Your task to perform on an android device: When is my next meeting? Image 0: 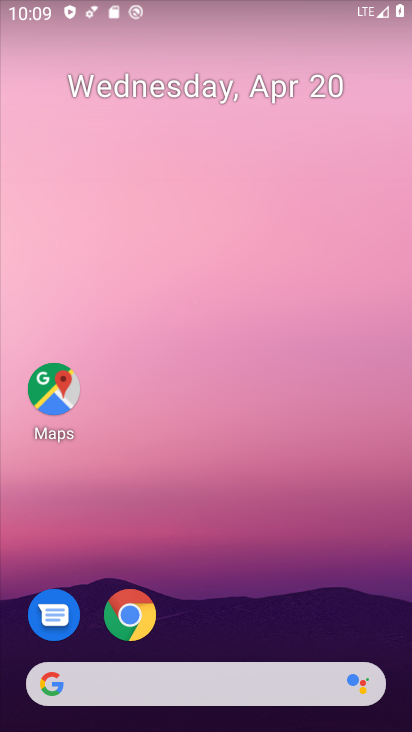
Step 0: drag from (215, 552) to (247, 218)
Your task to perform on an android device: When is my next meeting? Image 1: 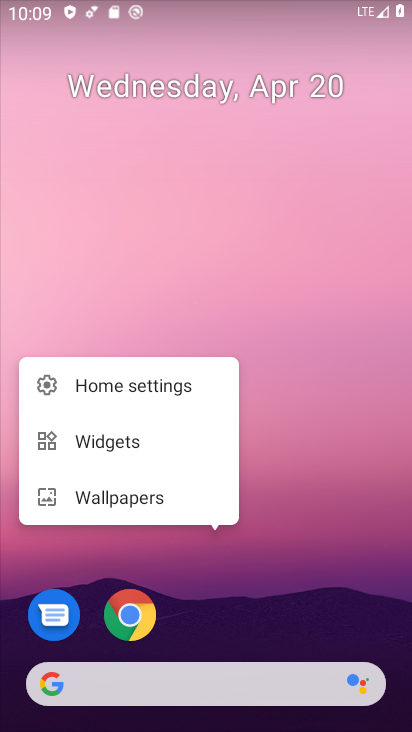
Step 1: click (296, 479)
Your task to perform on an android device: When is my next meeting? Image 2: 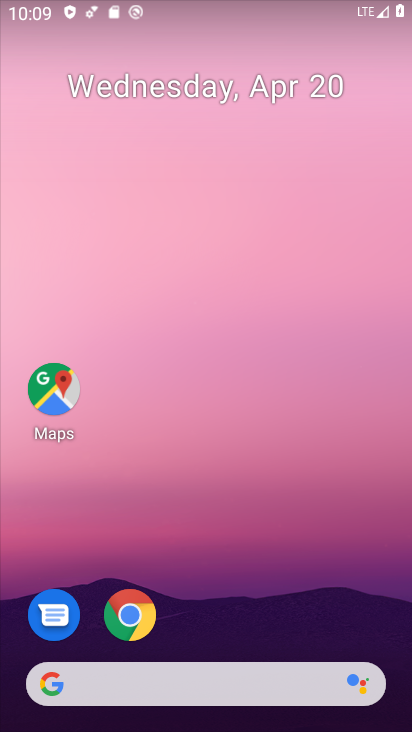
Step 2: drag from (268, 540) to (259, 1)
Your task to perform on an android device: When is my next meeting? Image 3: 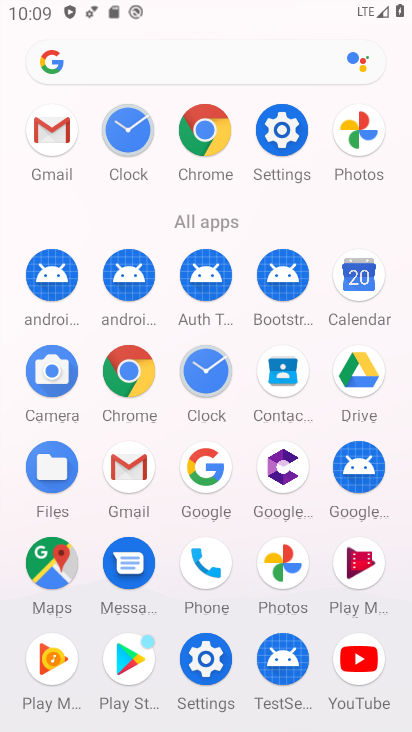
Step 3: click (362, 282)
Your task to perform on an android device: When is my next meeting? Image 4: 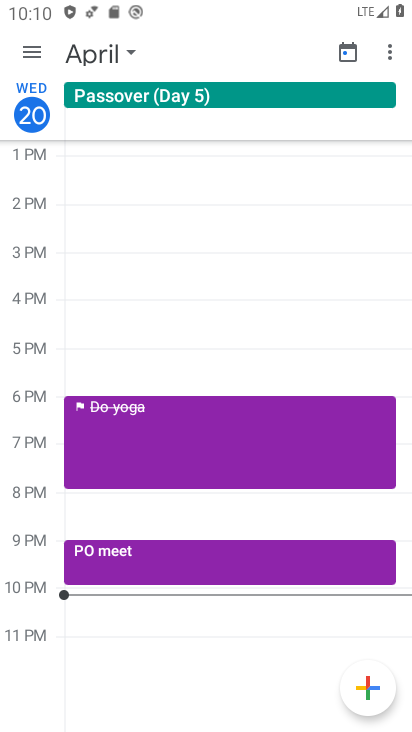
Step 4: click (115, 57)
Your task to perform on an android device: When is my next meeting? Image 5: 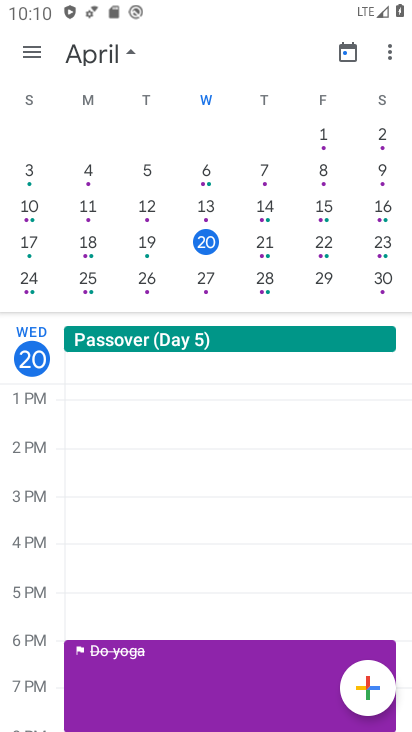
Step 5: click (115, 57)
Your task to perform on an android device: When is my next meeting? Image 6: 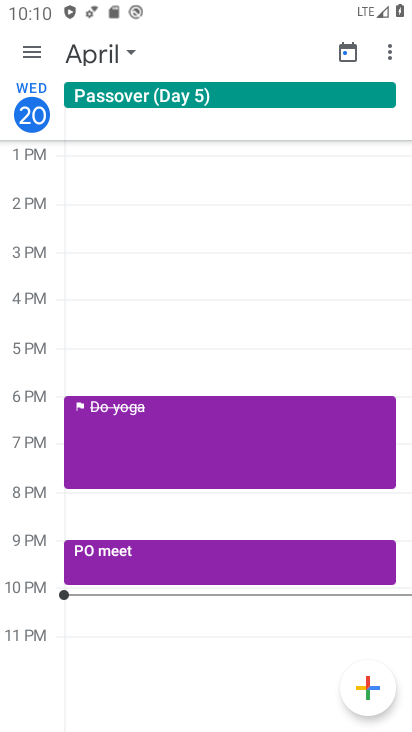
Step 6: click (22, 55)
Your task to perform on an android device: When is my next meeting? Image 7: 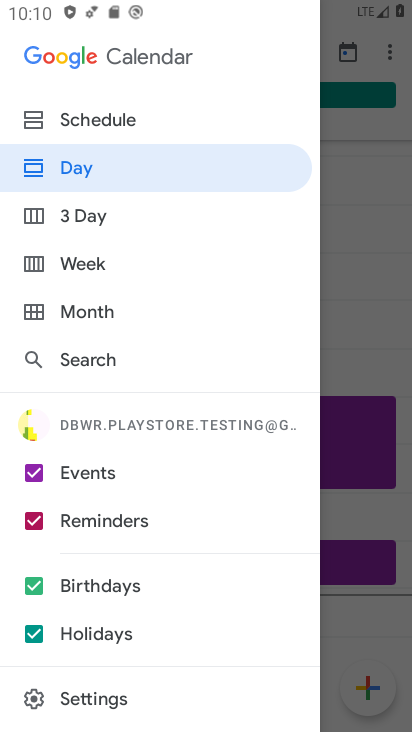
Step 7: click (86, 306)
Your task to perform on an android device: When is my next meeting? Image 8: 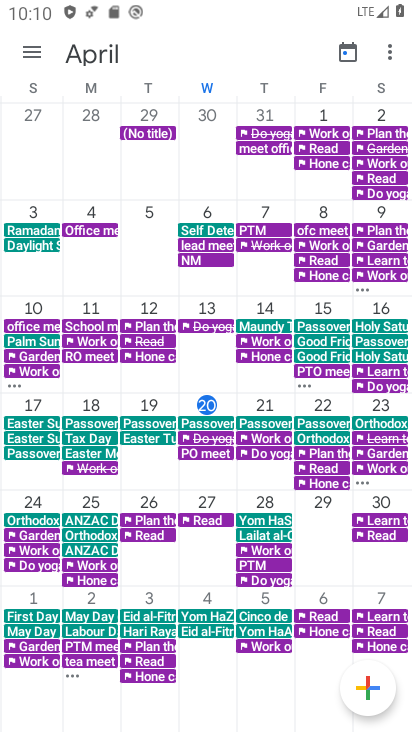
Step 8: task complete